Your task to perform on an android device: change notifications settings Image 0: 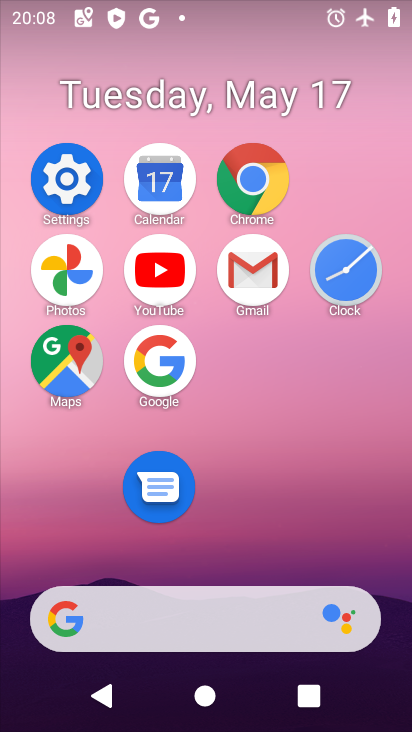
Step 0: click (73, 202)
Your task to perform on an android device: change notifications settings Image 1: 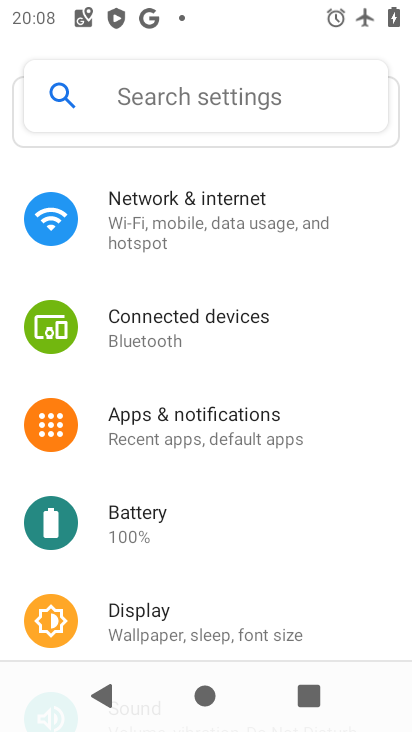
Step 1: click (234, 429)
Your task to perform on an android device: change notifications settings Image 2: 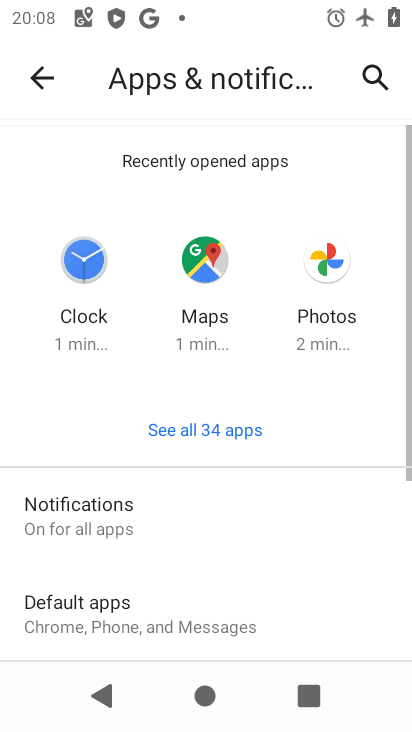
Step 2: task complete